Your task to perform on an android device: Go to Reddit.com Image 0: 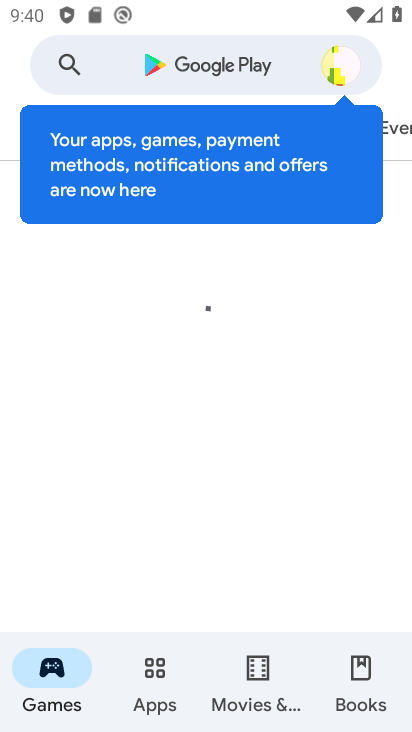
Step 0: press back button
Your task to perform on an android device: Go to Reddit.com Image 1: 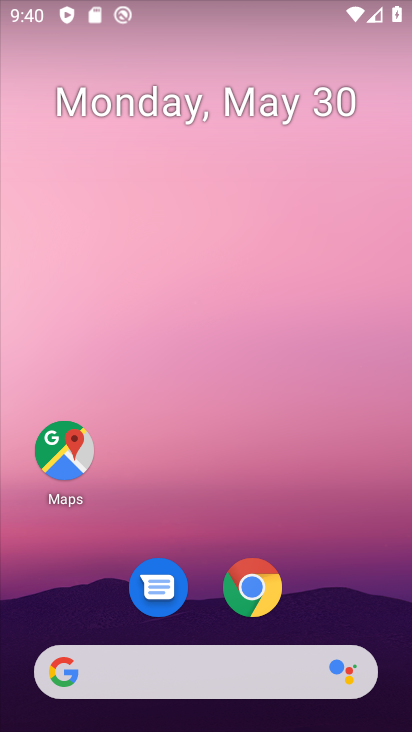
Step 1: drag from (324, 592) to (275, 3)
Your task to perform on an android device: Go to Reddit.com Image 2: 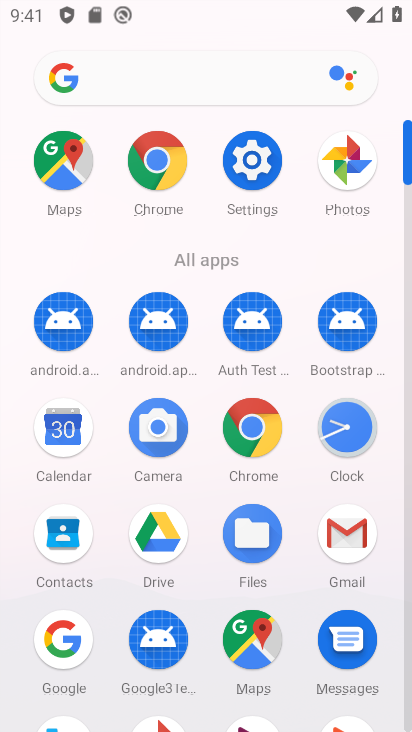
Step 2: click (252, 424)
Your task to perform on an android device: Go to Reddit.com Image 3: 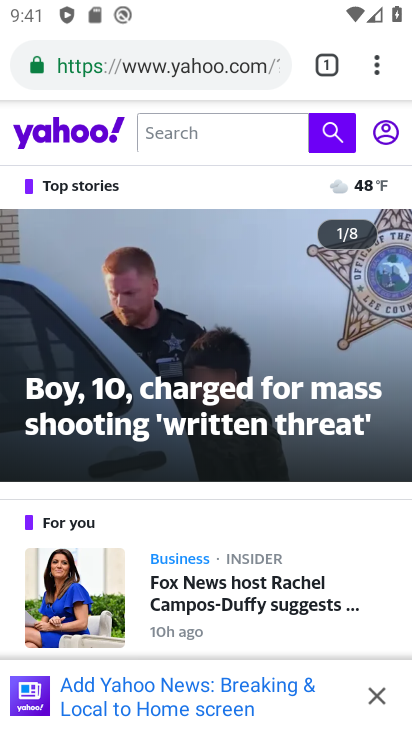
Step 3: click (181, 55)
Your task to perform on an android device: Go to Reddit.com Image 4: 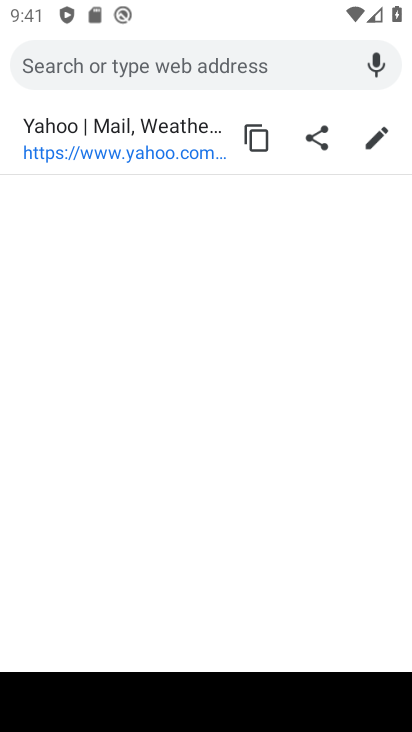
Step 4: type "Reddit.com"
Your task to perform on an android device: Go to Reddit.com Image 5: 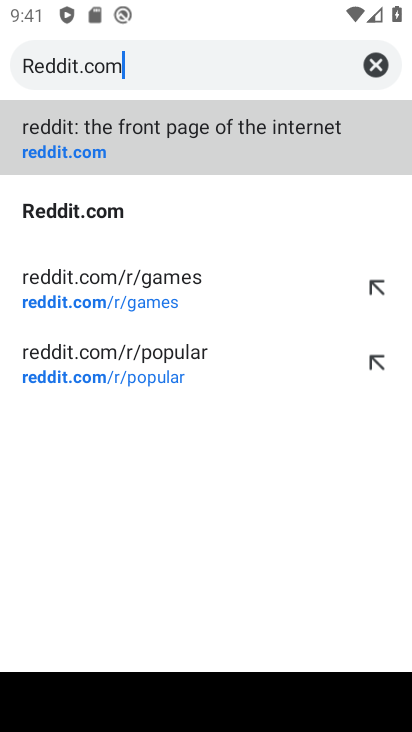
Step 5: type ""
Your task to perform on an android device: Go to Reddit.com Image 6: 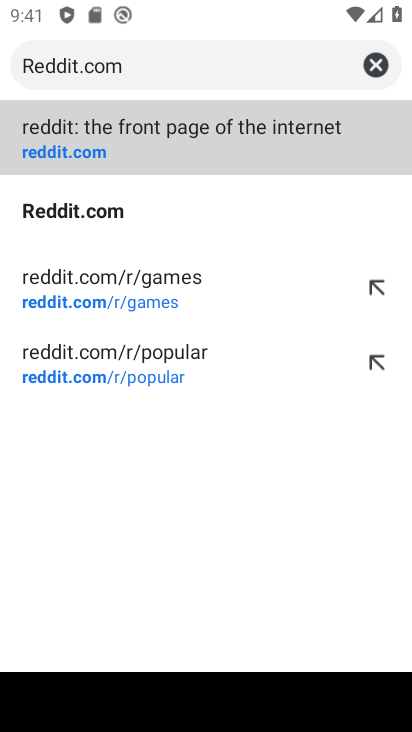
Step 6: click (147, 143)
Your task to perform on an android device: Go to Reddit.com Image 7: 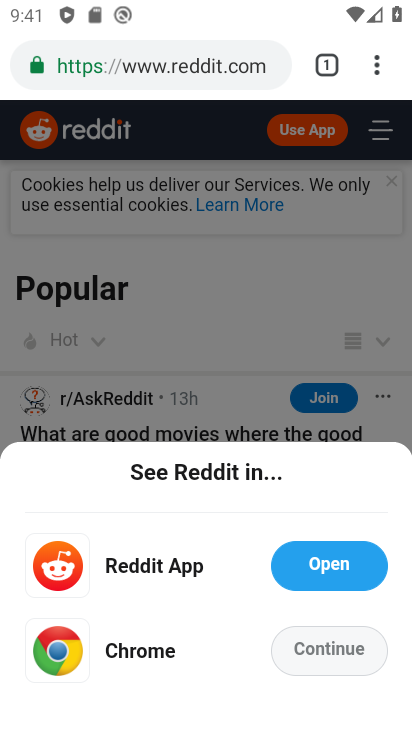
Step 7: task complete